Your task to perform on an android device: Go to Wikipedia Image 0: 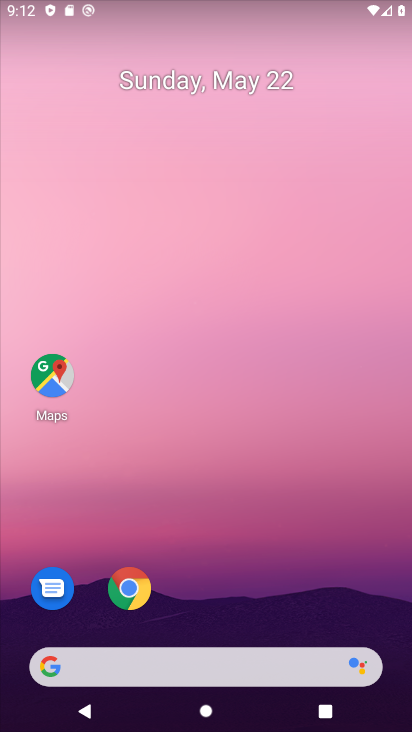
Step 0: click (121, 587)
Your task to perform on an android device: Go to Wikipedia Image 1: 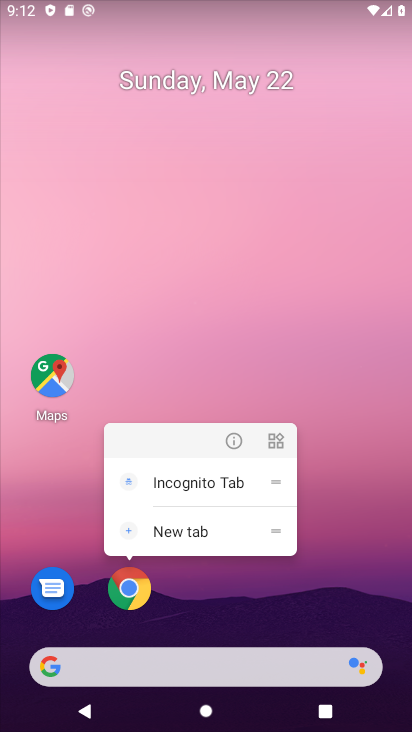
Step 1: click (133, 578)
Your task to perform on an android device: Go to Wikipedia Image 2: 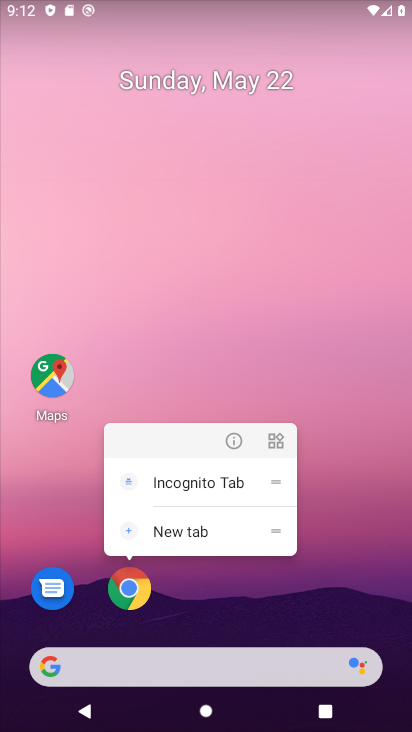
Step 2: click (247, 612)
Your task to perform on an android device: Go to Wikipedia Image 3: 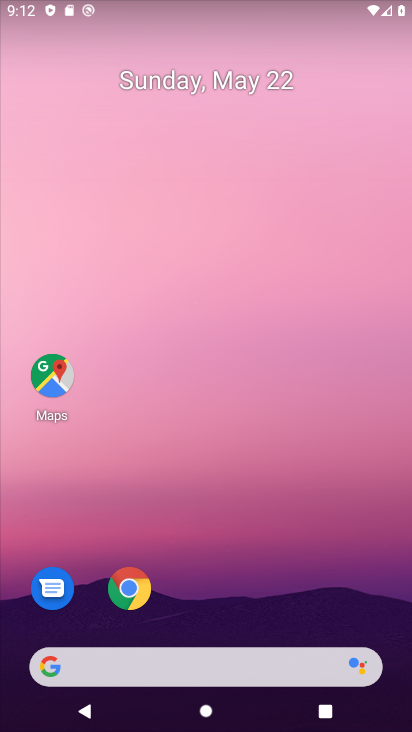
Step 3: drag from (247, 612) to (327, 143)
Your task to perform on an android device: Go to Wikipedia Image 4: 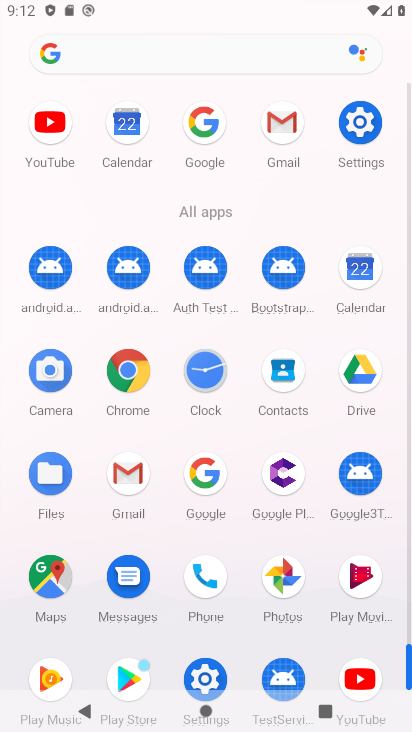
Step 4: click (130, 368)
Your task to perform on an android device: Go to Wikipedia Image 5: 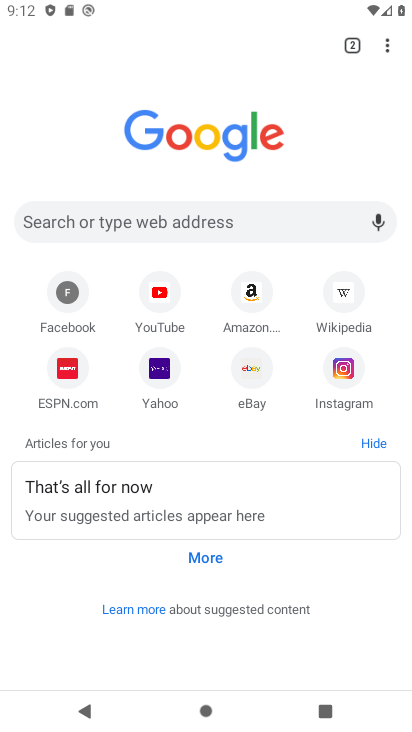
Step 5: click (341, 288)
Your task to perform on an android device: Go to Wikipedia Image 6: 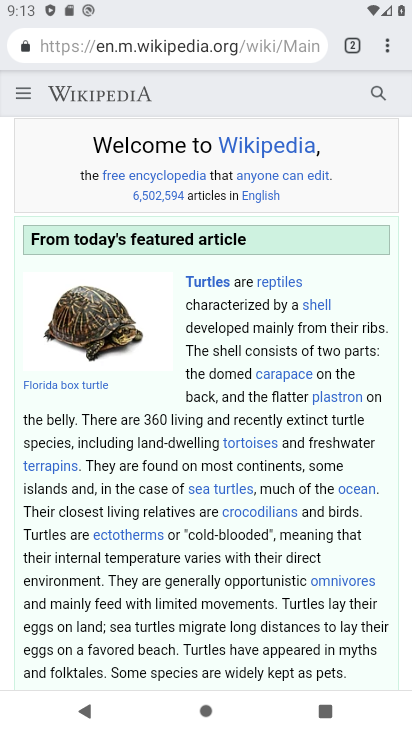
Step 6: task complete